Your task to perform on an android device: Google the capital of Paraguay Image 0: 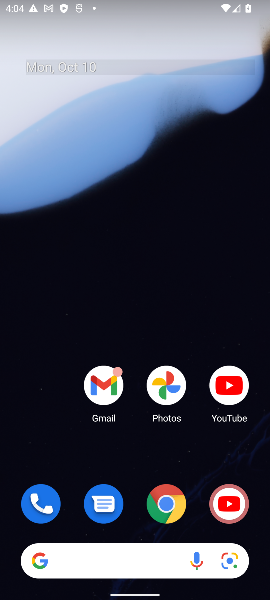
Step 0: drag from (82, 497) to (35, 78)
Your task to perform on an android device: Google the capital of Paraguay Image 1: 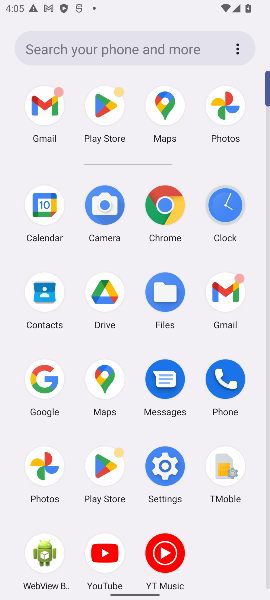
Step 1: click (153, 214)
Your task to perform on an android device: Google the capital of Paraguay Image 2: 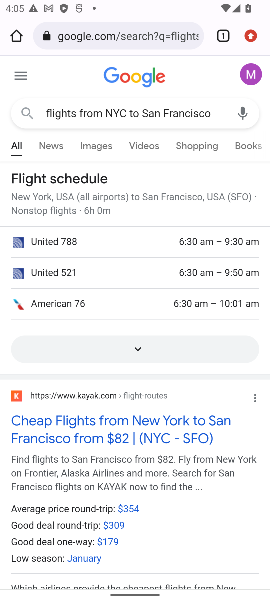
Step 2: click (146, 41)
Your task to perform on an android device: Google the capital of Paraguay Image 3: 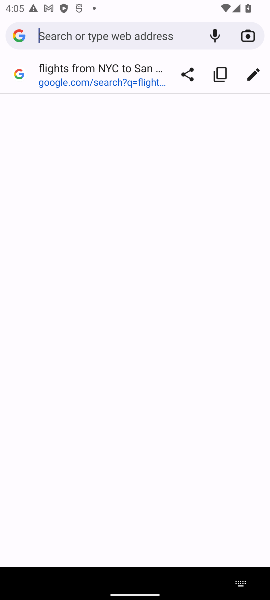
Step 3: type "capital of Paraguay"
Your task to perform on an android device: Google the capital of Paraguay Image 4: 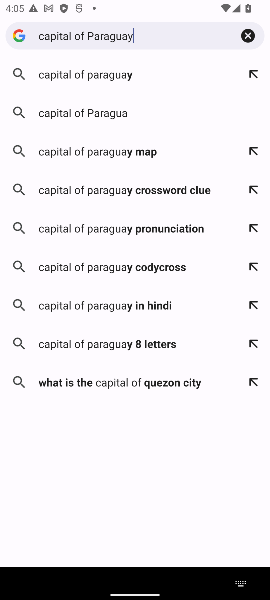
Step 4: press enter
Your task to perform on an android device: Google the capital of Paraguay Image 5: 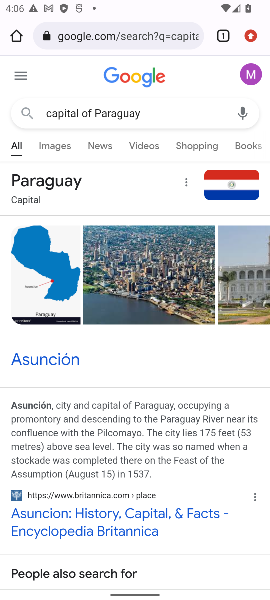
Step 5: task complete